Your task to perform on an android device: turn on priority inbox in the gmail app Image 0: 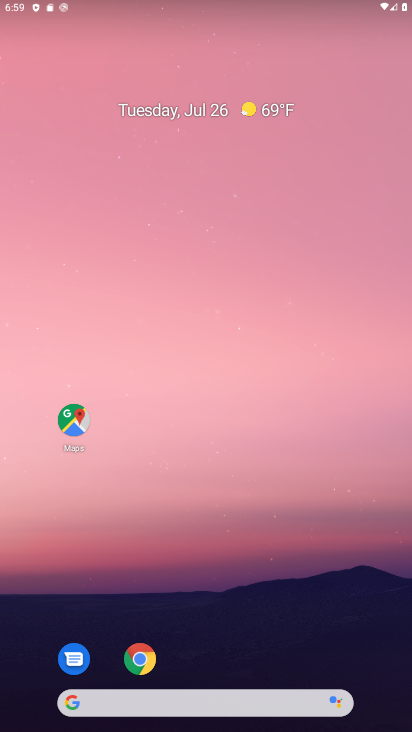
Step 0: click (182, 704)
Your task to perform on an android device: turn on priority inbox in the gmail app Image 1: 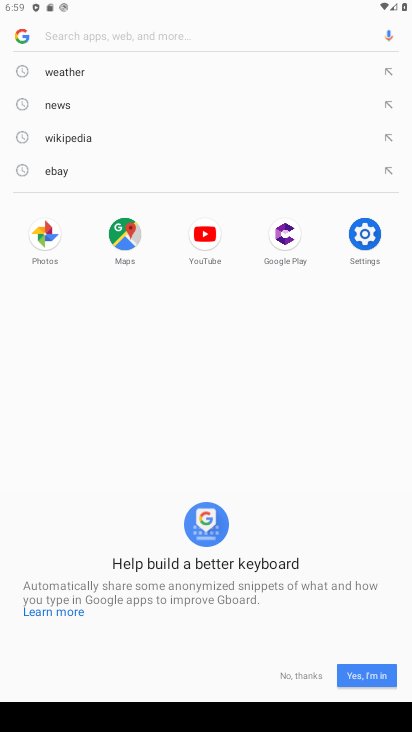
Step 1: click (278, 676)
Your task to perform on an android device: turn on priority inbox in the gmail app Image 2: 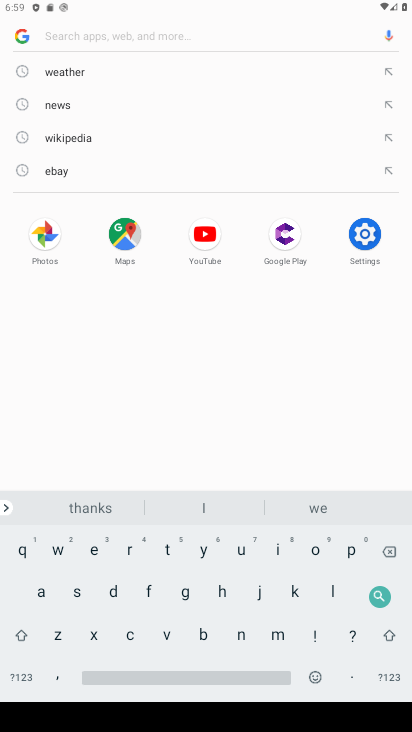
Step 2: press home button
Your task to perform on an android device: turn on priority inbox in the gmail app Image 3: 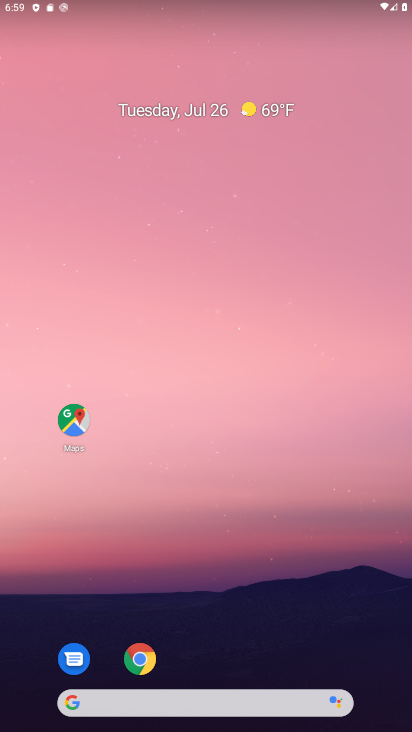
Step 3: drag from (258, 716) to (284, 194)
Your task to perform on an android device: turn on priority inbox in the gmail app Image 4: 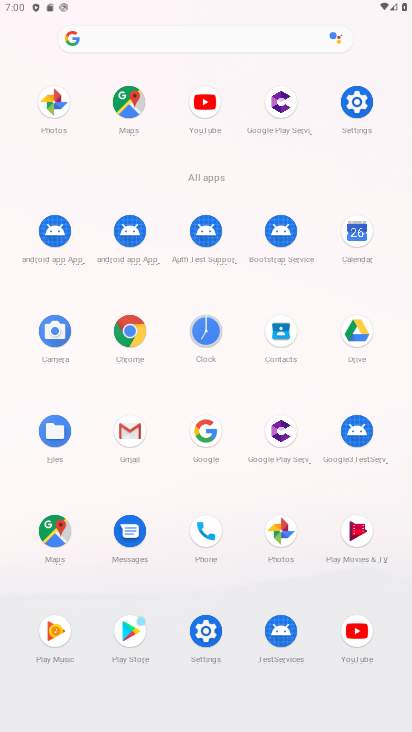
Step 4: click (139, 430)
Your task to perform on an android device: turn on priority inbox in the gmail app Image 5: 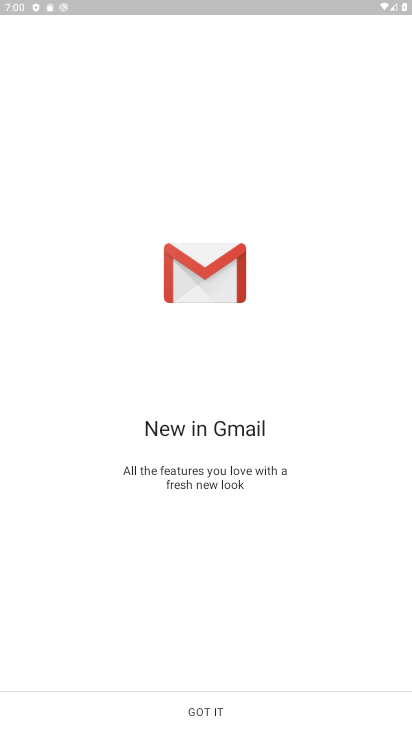
Step 5: click (219, 712)
Your task to perform on an android device: turn on priority inbox in the gmail app Image 6: 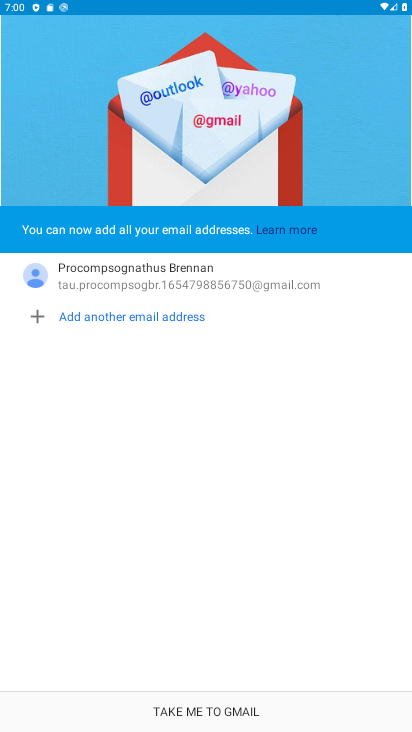
Step 6: click (165, 710)
Your task to perform on an android device: turn on priority inbox in the gmail app Image 7: 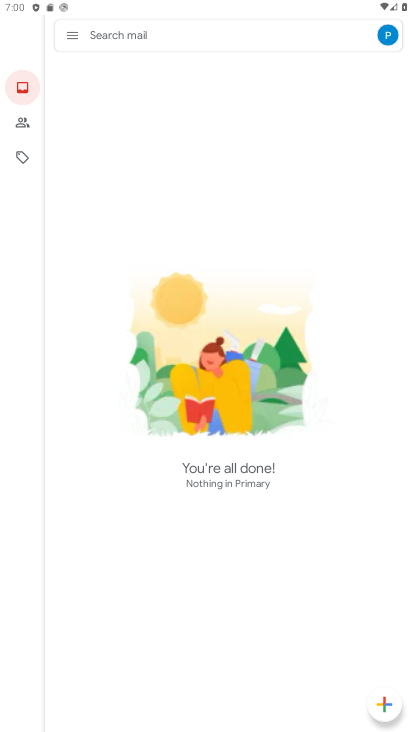
Step 7: click (72, 30)
Your task to perform on an android device: turn on priority inbox in the gmail app Image 8: 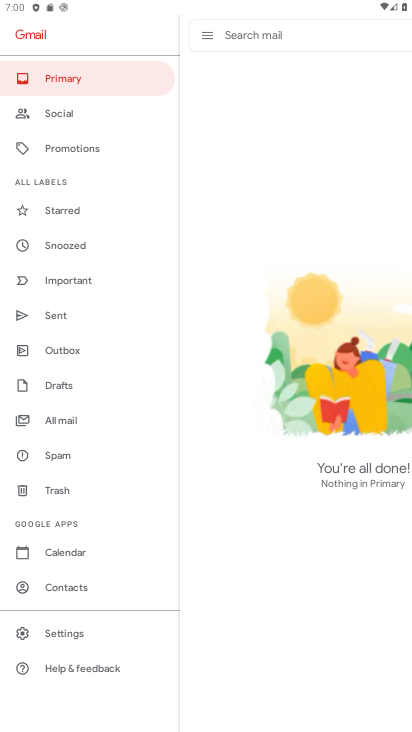
Step 8: click (71, 628)
Your task to perform on an android device: turn on priority inbox in the gmail app Image 9: 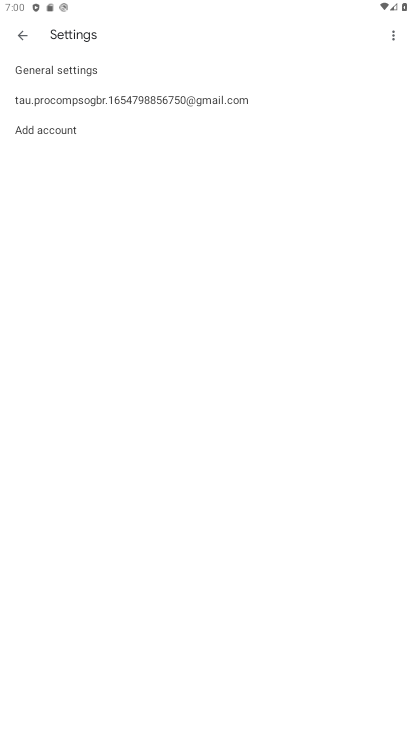
Step 9: click (89, 91)
Your task to perform on an android device: turn on priority inbox in the gmail app Image 10: 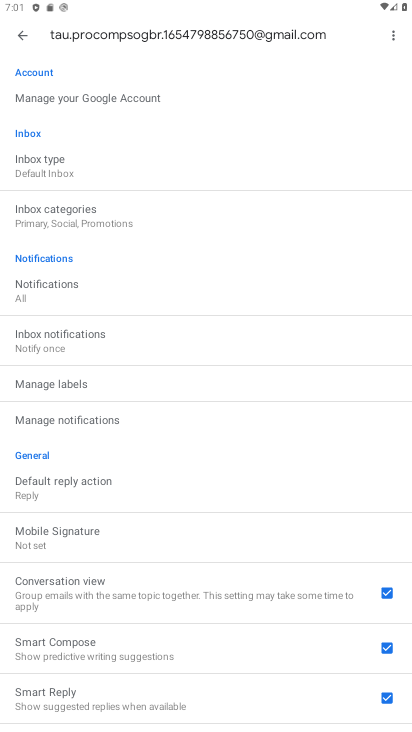
Step 10: click (65, 166)
Your task to perform on an android device: turn on priority inbox in the gmail app Image 11: 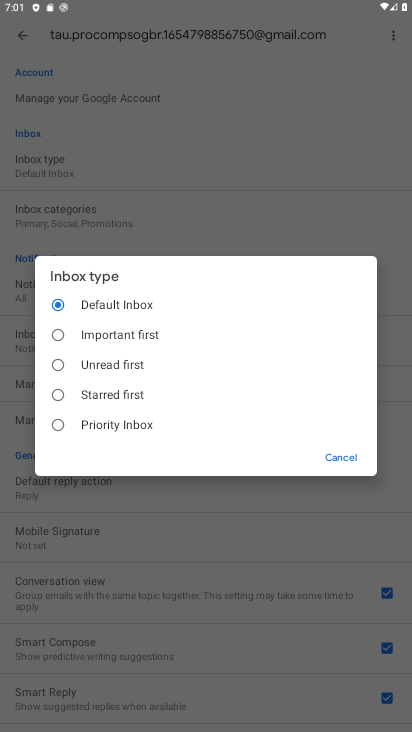
Step 11: click (109, 421)
Your task to perform on an android device: turn on priority inbox in the gmail app Image 12: 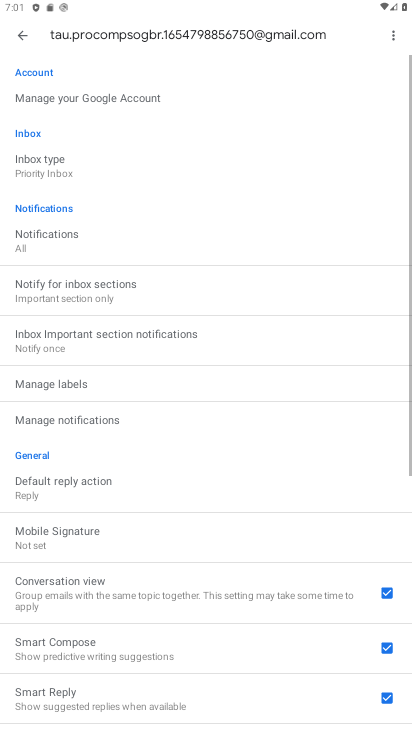
Step 12: task complete